Your task to perform on an android device: turn on wifi Image 0: 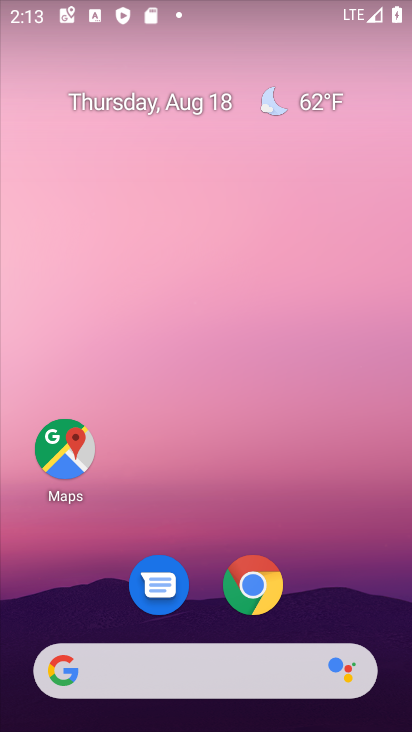
Step 0: drag from (187, 506) to (268, 13)
Your task to perform on an android device: turn on wifi Image 1: 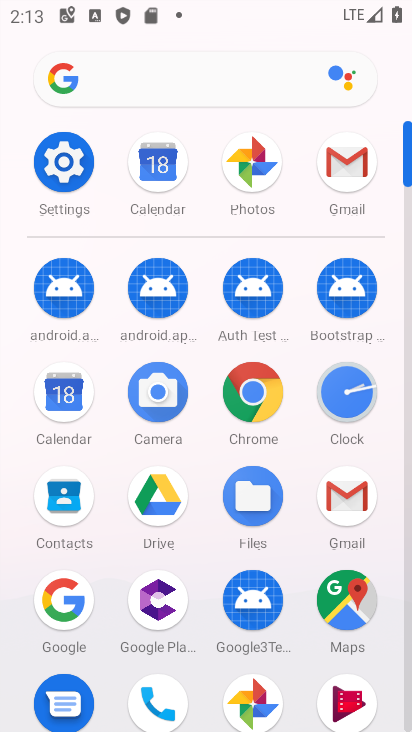
Step 1: click (64, 157)
Your task to perform on an android device: turn on wifi Image 2: 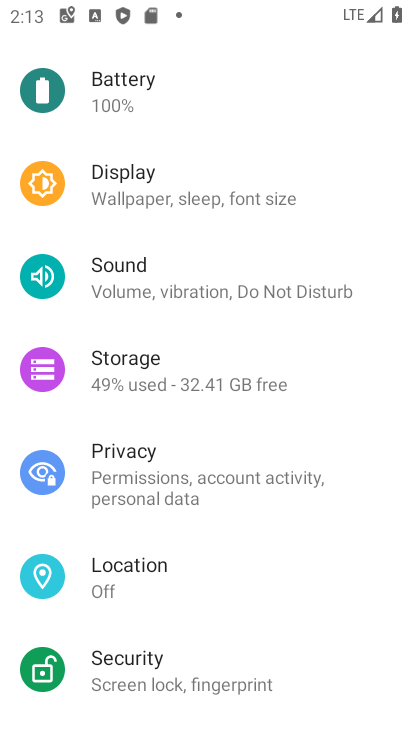
Step 2: drag from (199, 240) to (212, 675)
Your task to perform on an android device: turn on wifi Image 3: 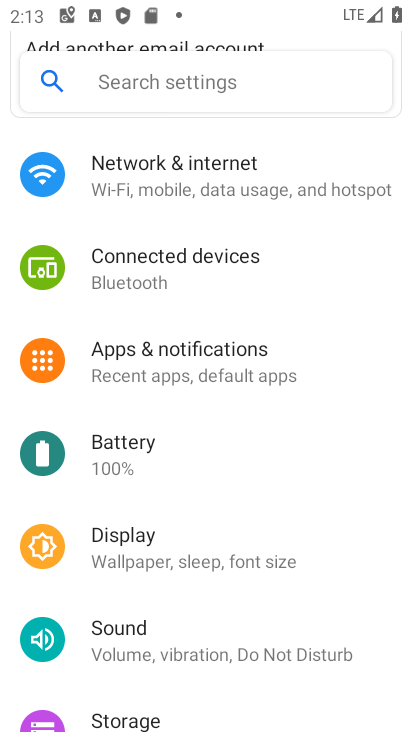
Step 3: click (275, 173)
Your task to perform on an android device: turn on wifi Image 4: 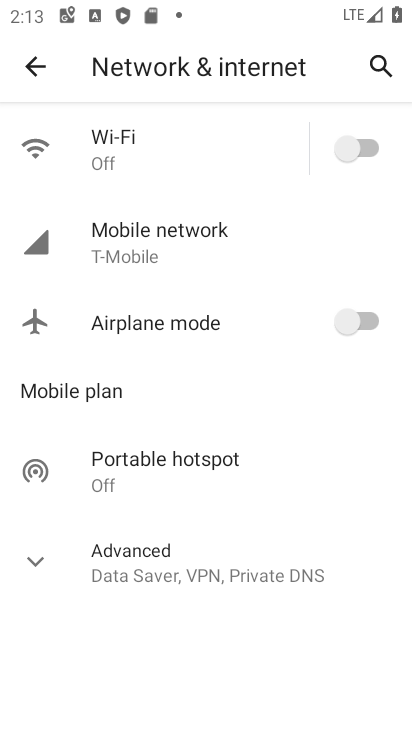
Step 4: click (361, 147)
Your task to perform on an android device: turn on wifi Image 5: 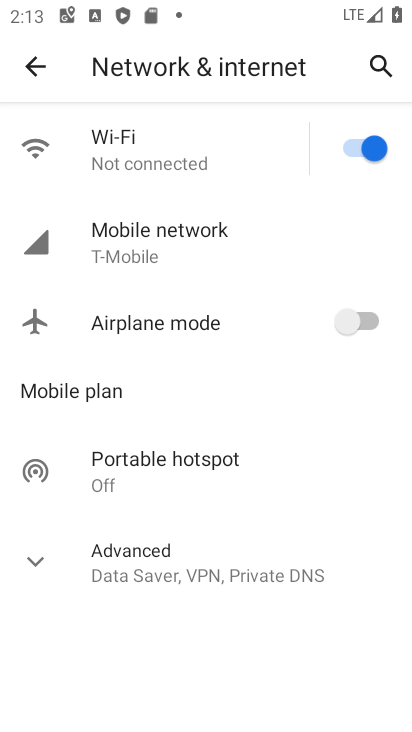
Step 5: task complete